Your task to perform on an android device: check battery use Image 0: 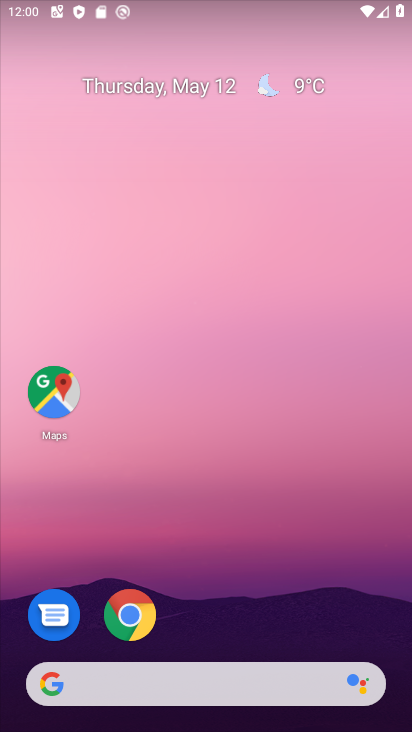
Step 0: drag from (327, 611) to (208, 66)
Your task to perform on an android device: check battery use Image 1: 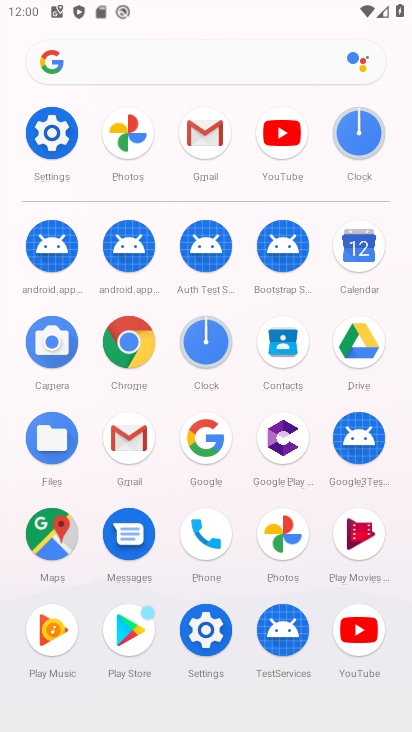
Step 1: click (40, 133)
Your task to perform on an android device: check battery use Image 2: 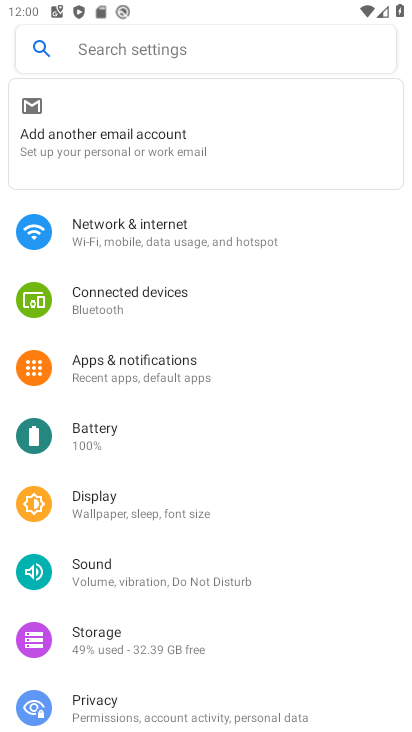
Step 2: click (111, 455)
Your task to perform on an android device: check battery use Image 3: 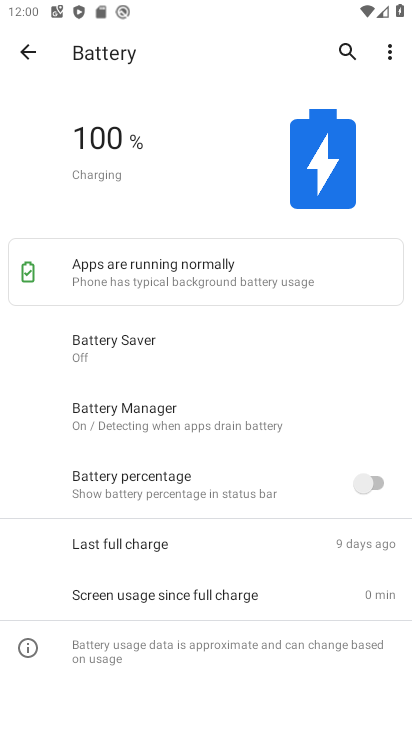
Step 3: click (385, 46)
Your task to perform on an android device: check battery use Image 4: 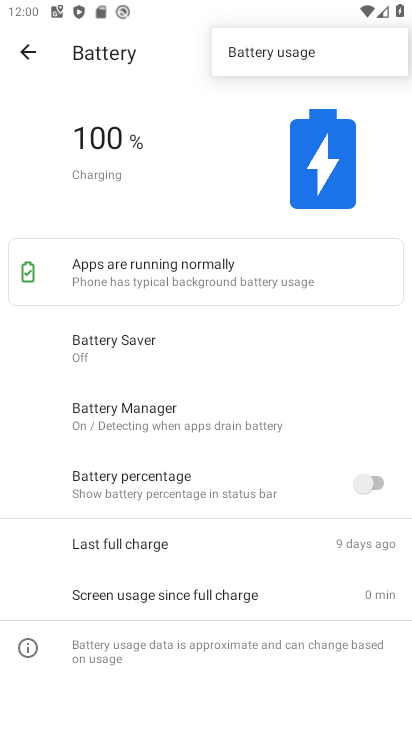
Step 4: click (355, 54)
Your task to perform on an android device: check battery use Image 5: 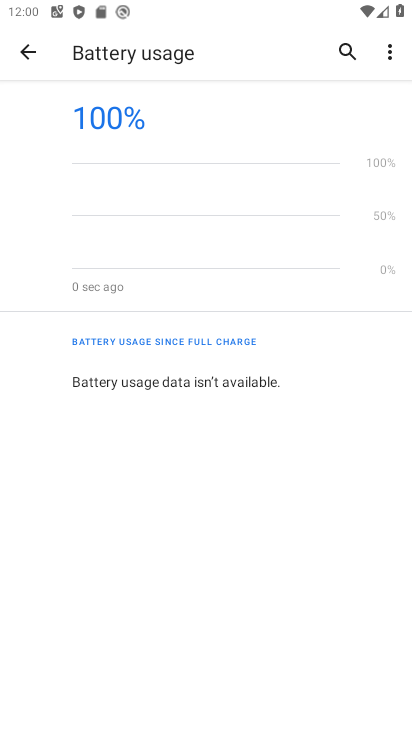
Step 5: task complete